Your task to perform on an android device: Go to Reddit.com Image 0: 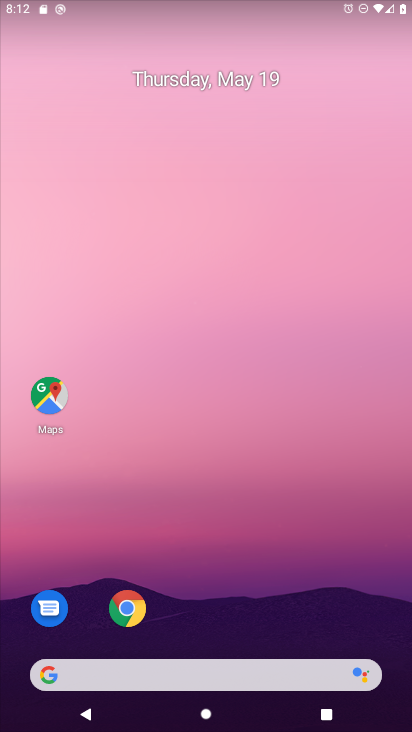
Step 0: click (134, 615)
Your task to perform on an android device: Go to Reddit.com Image 1: 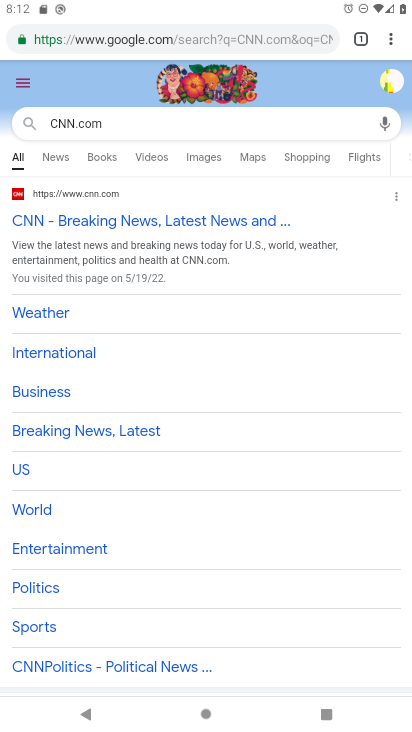
Step 1: click (329, 37)
Your task to perform on an android device: Go to Reddit.com Image 2: 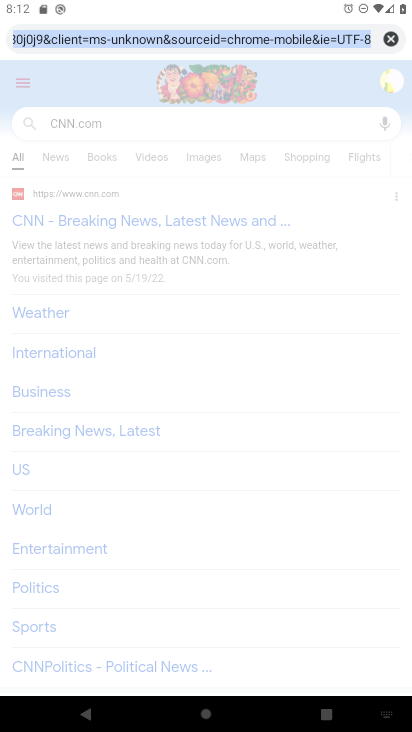
Step 2: click (385, 33)
Your task to perform on an android device: Go to Reddit.com Image 3: 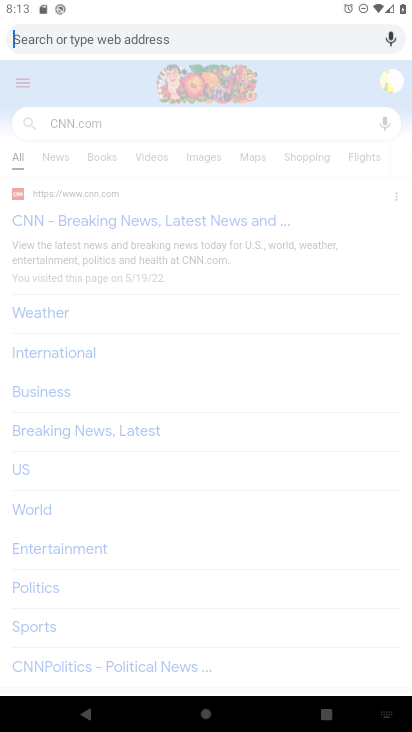
Step 3: type "Reddit.com"
Your task to perform on an android device: Go to Reddit.com Image 4: 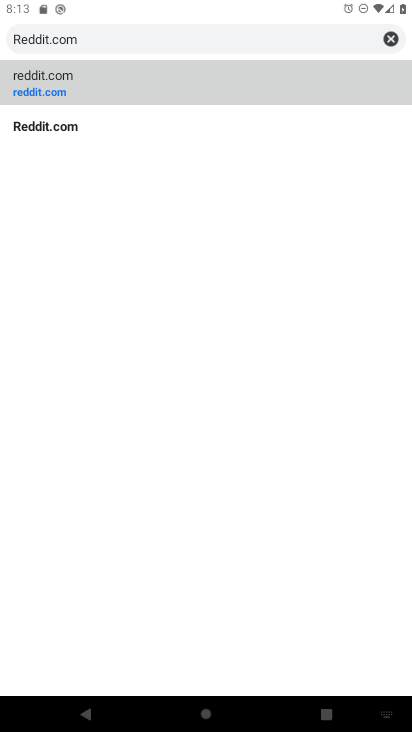
Step 4: click (69, 120)
Your task to perform on an android device: Go to Reddit.com Image 5: 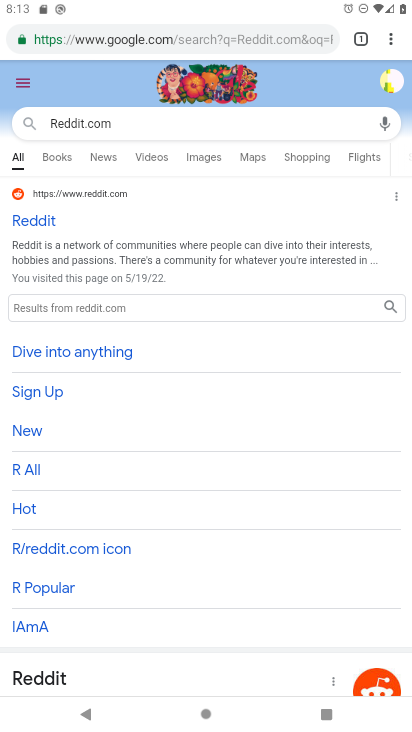
Step 5: task complete